Your task to perform on an android device: Open Android settings Image 0: 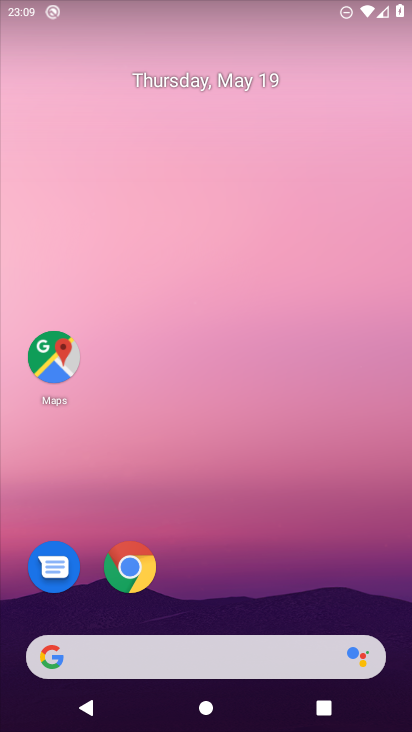
Step 0: press home button
Your task to perform on an android device: Open Android settings Image 1: 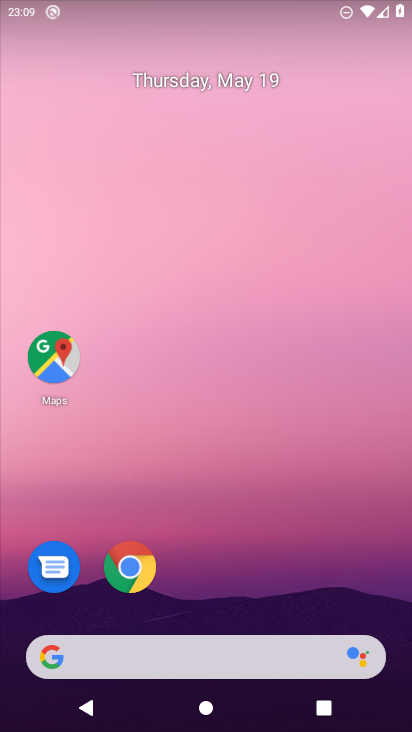
Step 1: drag from (230, 616) to (222, 32)
Your task to perform on an android device: Open Android settings Image 2: 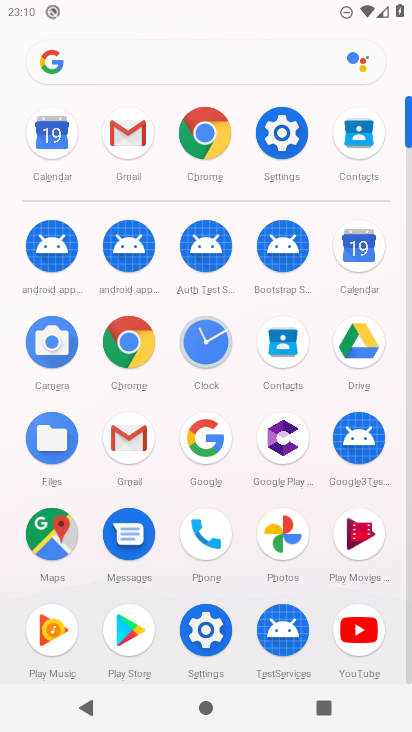
Step 2: click (278, 134)
Your task to perform on an android device: Open Android settings Image 3: 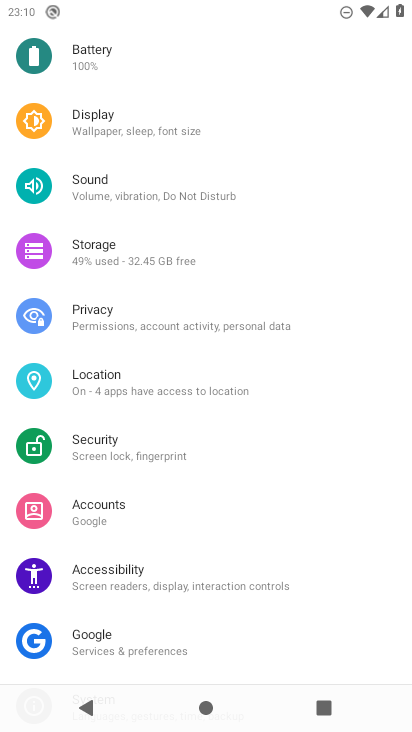
Step 3: drag from (134, 610) to (150, 50)
Your task to perform on an android device: Open Android settings Image 4: 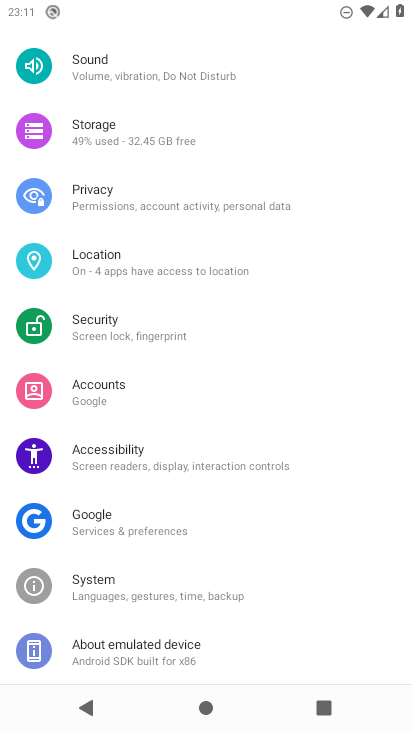
Step 4: click (150, 656)
Your task to perform on an android device: Open Android settings Image 5: 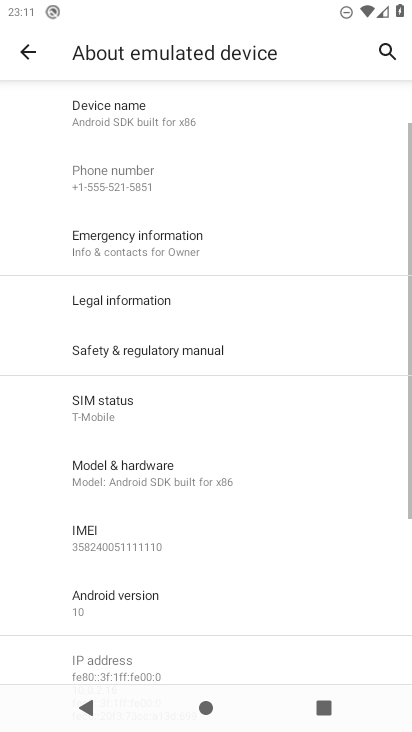
Step 5: click (148, 601)
Your task to perform on an android device: Open Android settings Image 6: 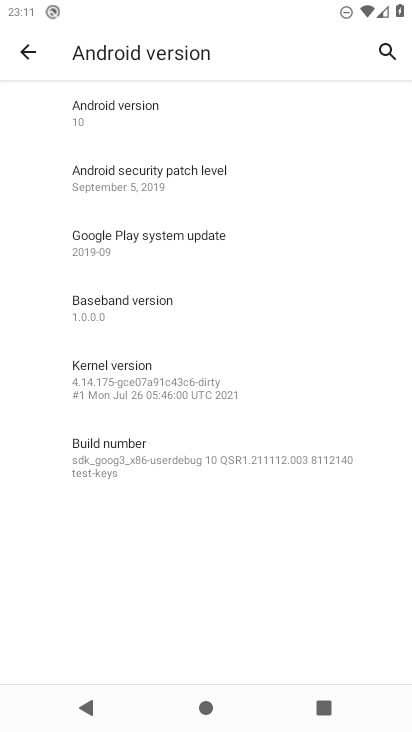
Step 6: task complete